Your task to perform on an android device: Go to internet settings Image 0: 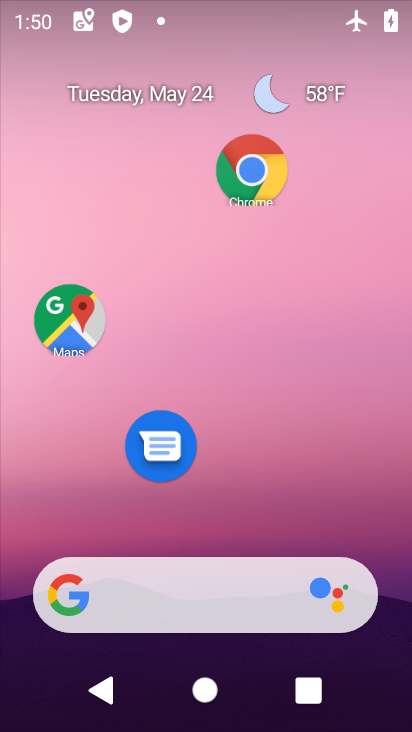
Step 0: drag from (255, 618) to (252, 149)
Your task to perform on an android device: Go to internet settings Image 1: 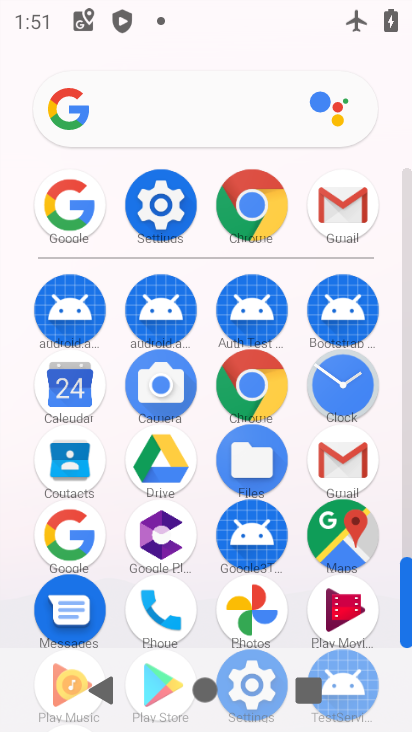
Step 1: click (167, 221)
Your task to perform on an android device: Go to internet settings Image 2: 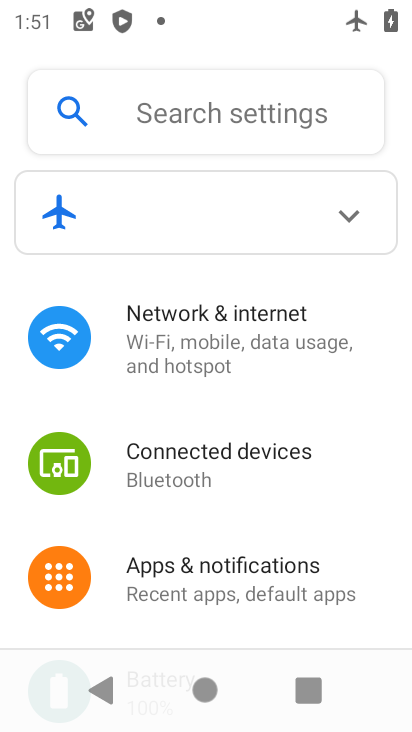
Step 2: click (207, 345)
Your task to perform on an android device: Go to internet settings Image 3: 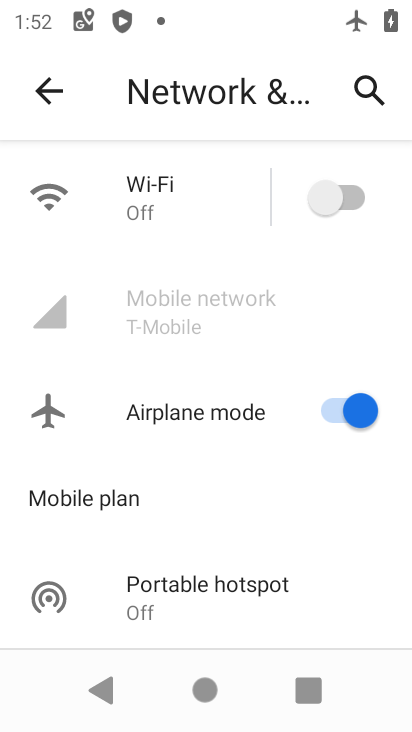
Step 3: task complete